Your task to perform on an android device: Go to Yahoo.com Image 0: 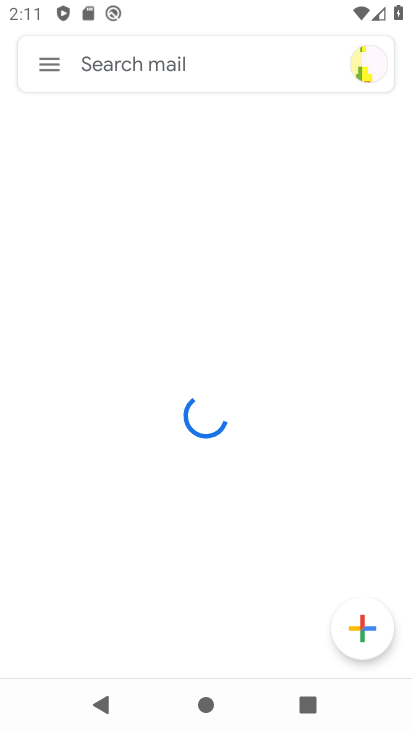
Step 0: press home button
Your task to perform on an android device: Go to Yahoo.com Image 1: 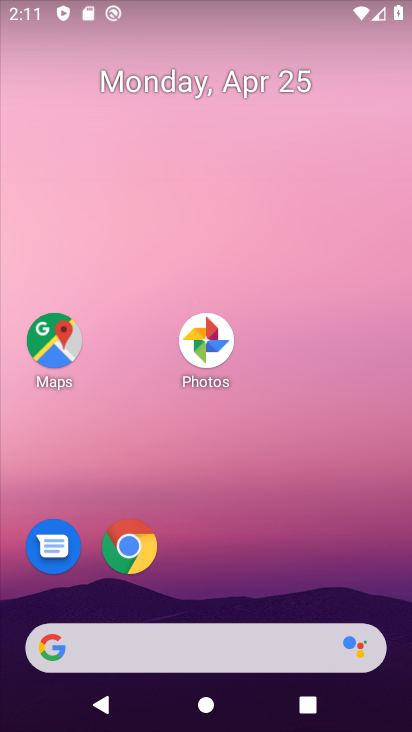
Step 1: drag from (297, 543) to (317, 189)
Your task to perform on an android device: Go to Yahoo.com Image 2: 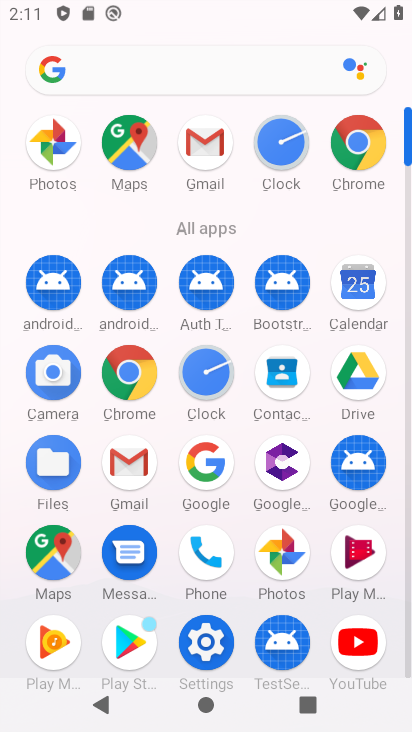
Step 2: click (137, 368)
Your task to perform on an android device: Go to Yahoo.com Image 3: 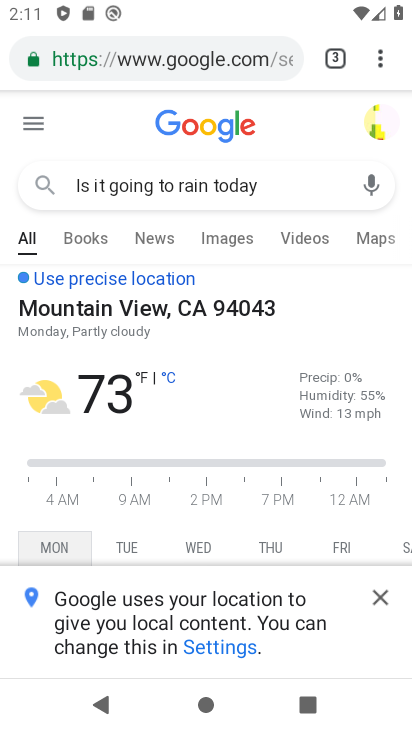
Step 3: click (372, 56)
Your task to perform on an android device: Go to Yahoo.com Image 4: 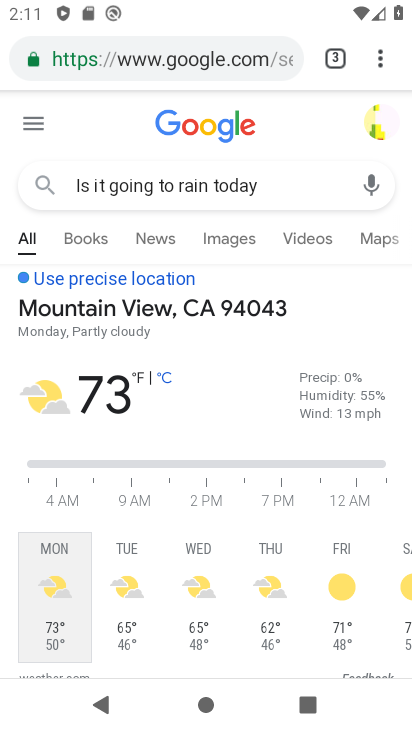
Step 4: click (351, 57)
Your task to perform on an android device: Go to Yahoo.com Image 5: 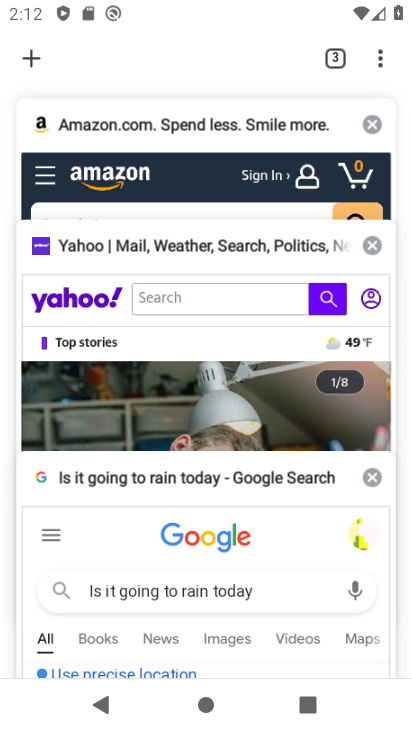
Step 5: click (107, 308)
Your task to perform on an android device: Go to Yahoo.com Image 6: 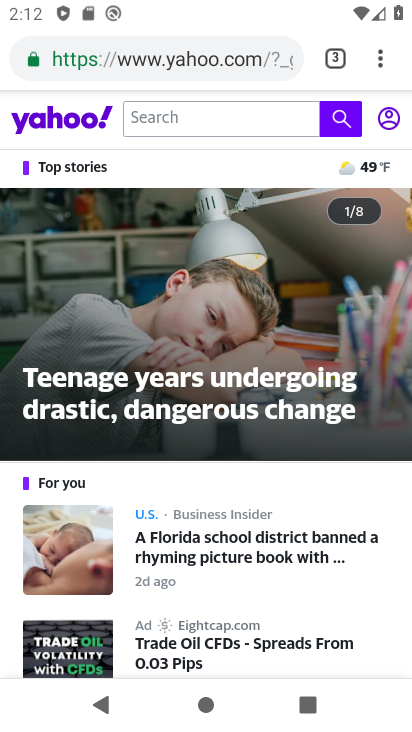
Step 6: task complete